Your task to perform on an android device: turn on the 24-hour format for clock Image 0: 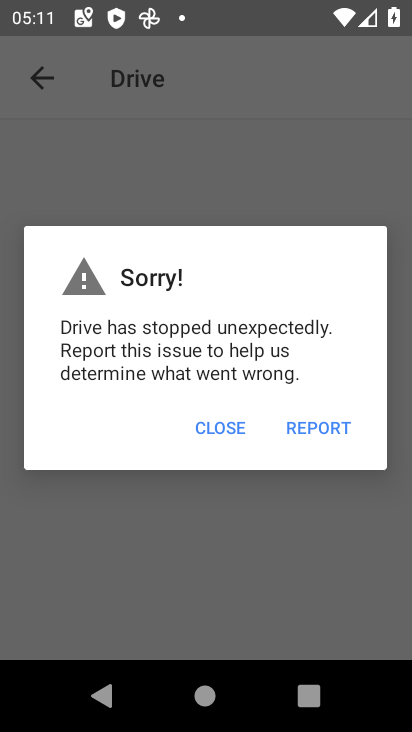
Step 0: press home button
Your task to perform on an android device: turn on the 24-hour format for clock Image 1: 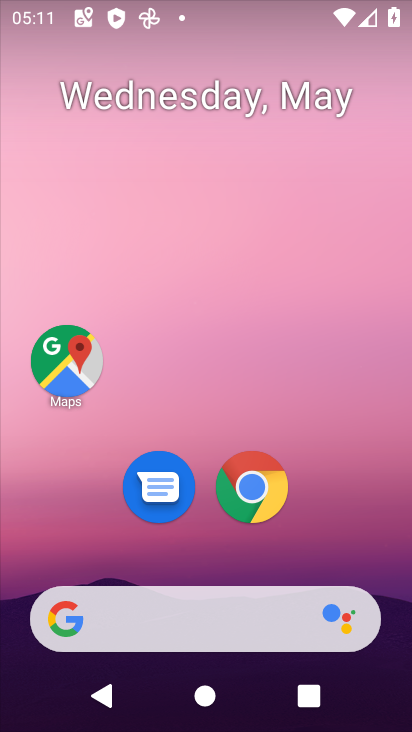
Step 1: drag from (341, 544) to (347, 157)
Your task to perform on an android device: turn on the 24-hour format for clock Image 2: 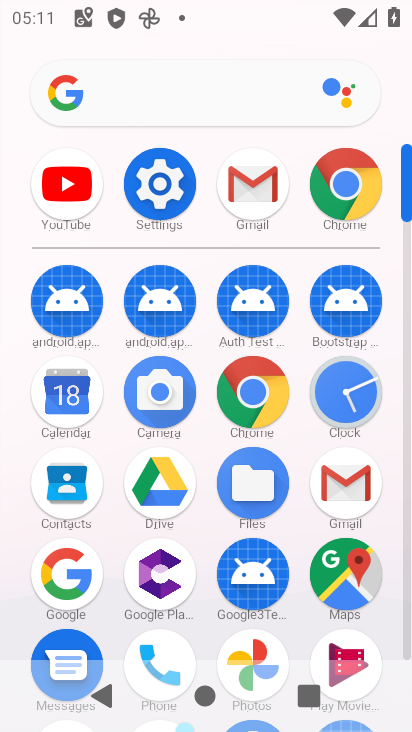
Step 2: click (165, 193)
Your task to perform on an android device: turn on the 24-hour format for clock Image 3: 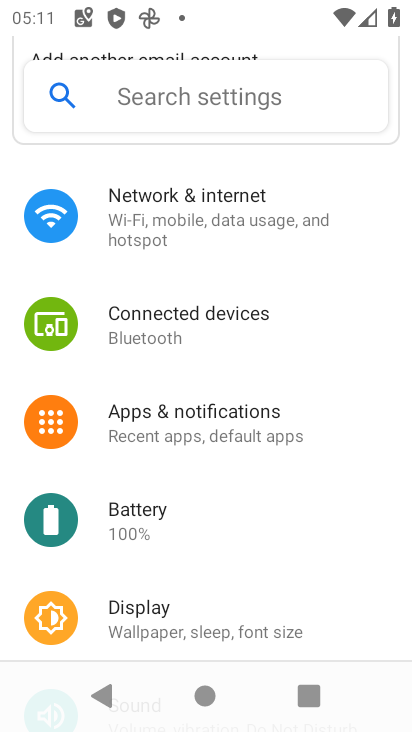
Step 3: drag from (193, 567) to (263, 372)
Your task to perform on an android device: turn on the 24-hour format for clock Image 4: 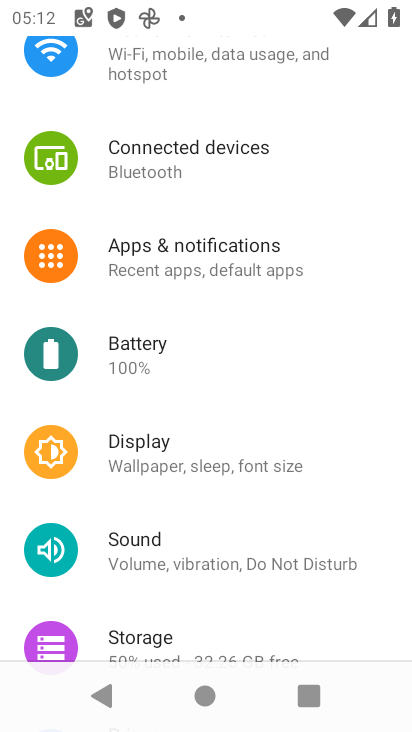
Step 4: drag from (211, 538) to (265, 297)
Your task to perform on an android device: turn on the 24-hour format for clock Image 5: 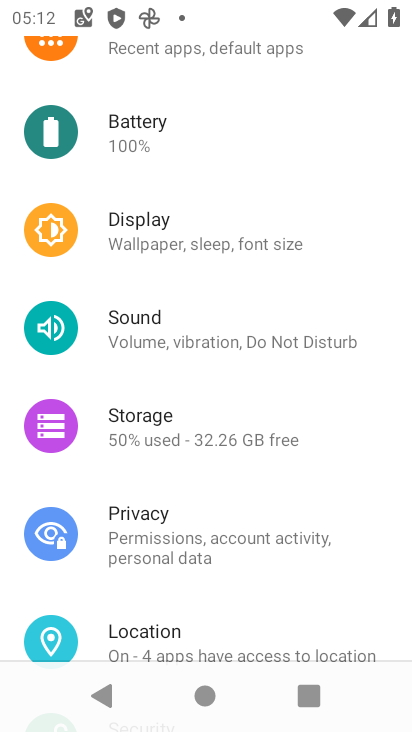
Step 5: press home button
Your task to perform on an android device: turn on the 24-hour format for clock Image 6: 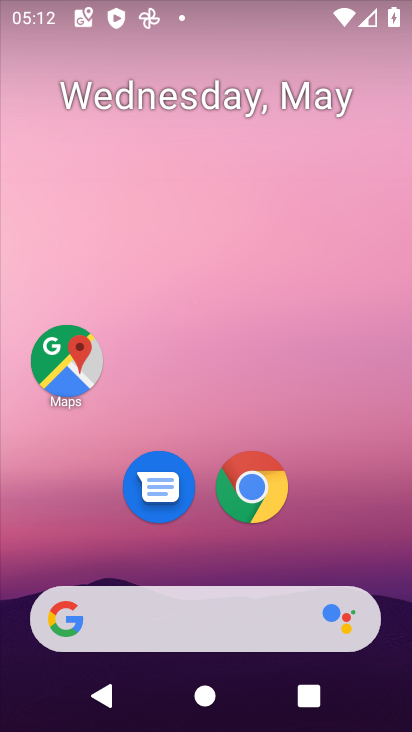
Step 6: drag from (320, 518) to (313, 119)
Your task to perform on an android device: turn on the 24-hour format for clock Image 7: 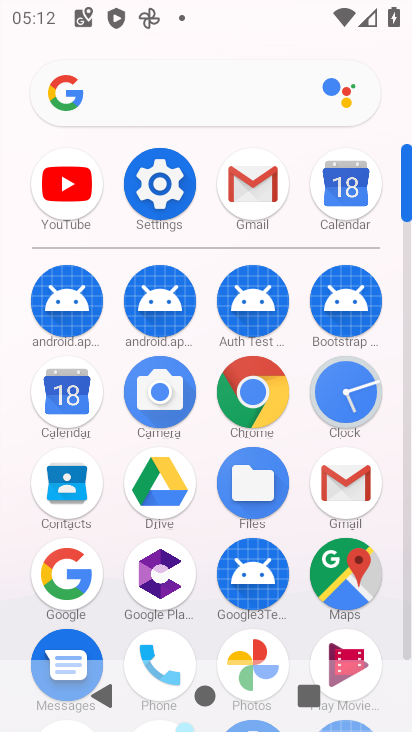
Step 7: click (344, 391)
Your task to perform on an android device: turn on the 24-hour format for clock Image 8: 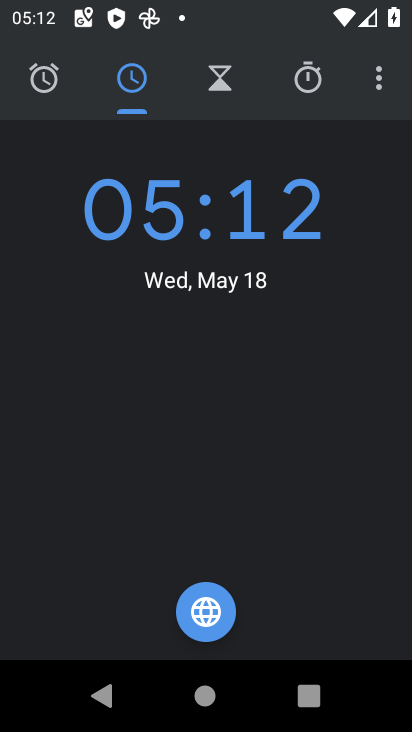
Step 8: click (373, 79)
Your task to perform on an android device: turn on the 24-hour format for clock Image 9: 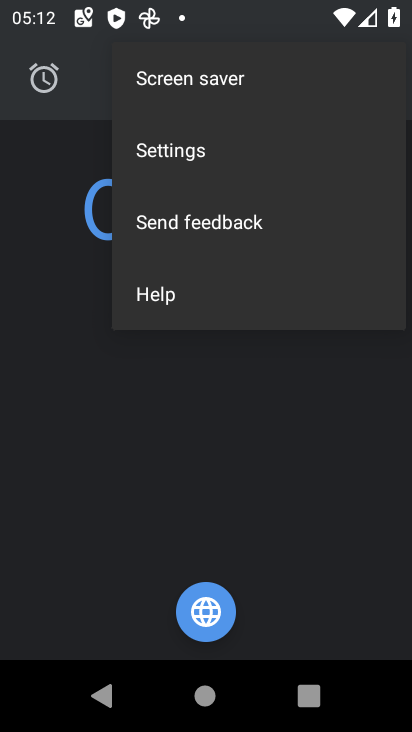
Step 9: click (214, 159)
Your task to perform on an android device: turn on the 24-hour format for clock Image 10: 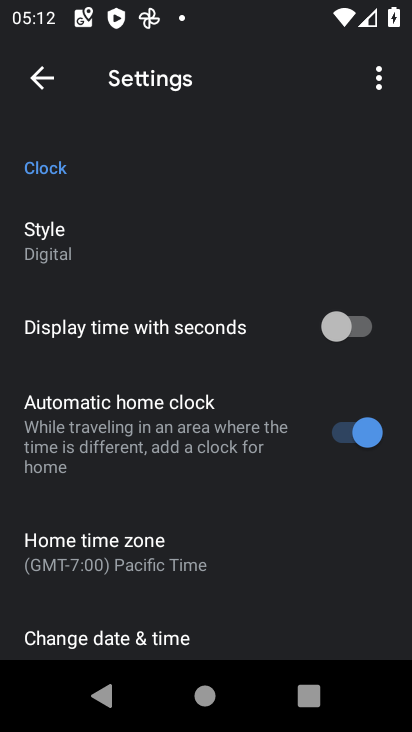
Step 10: drag from (116, 573) to (171, 200)
Your task to perform on an android device: turn on the 24-hour format for clock Image 11: 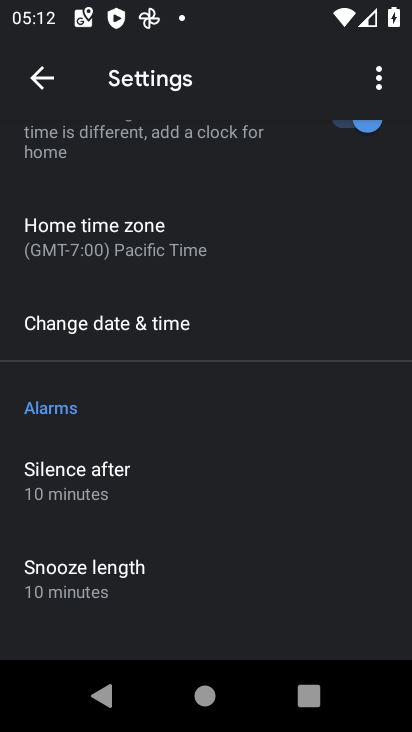
Step 11: click (158, 347)
Your task to perform on an android device: turn on the 24-hour format for clock Image 12: 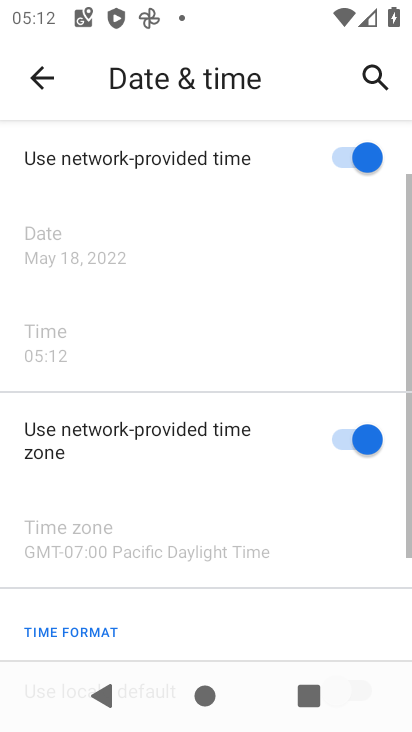
Step 12: task complete